Your task to perform on an android device: Go to accessibility settings Image 0: 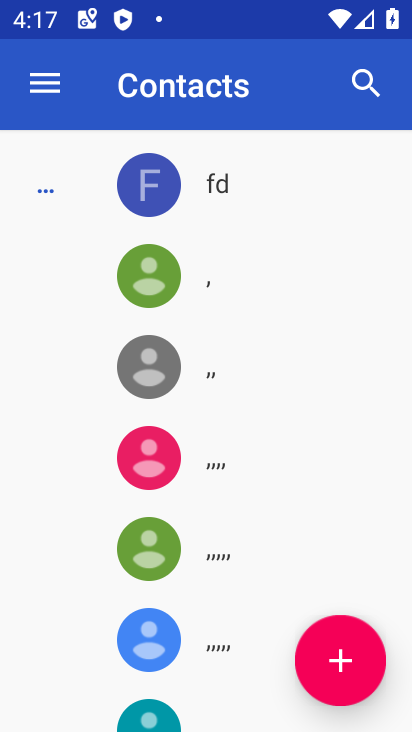
Step 0: press back button
Your task to perform on an android device: Go to accessibility settings Image 1: 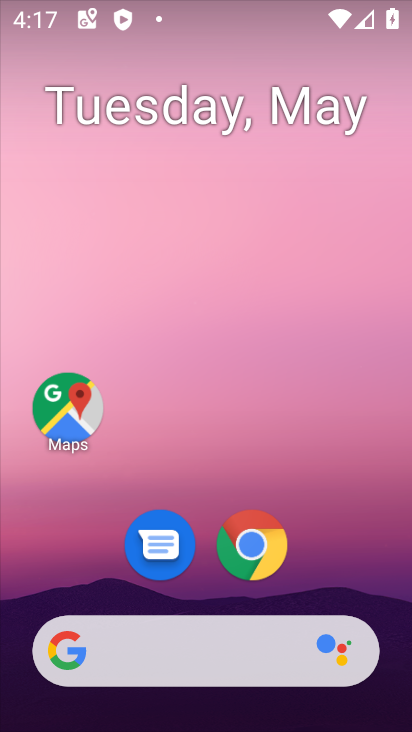
Step 1: drag from (324, 561) to (377, 1)
Your task to perform on an android device: Go to accessibility settings Image 2: 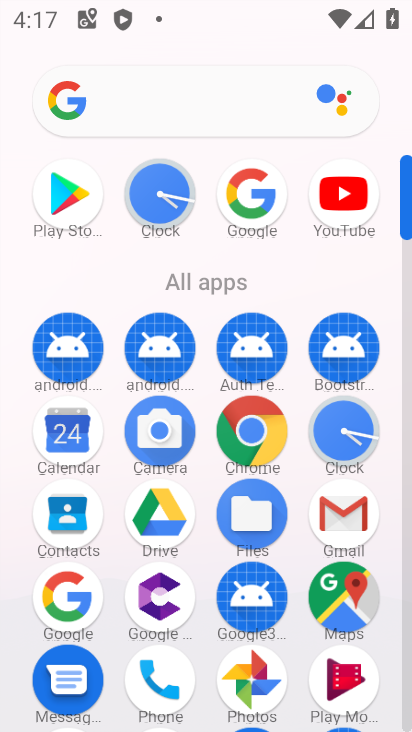
Step 2: drag from (205, 519) to (213, 233)
Your task to perform on an android device: Go to accessibility settings Image 3: 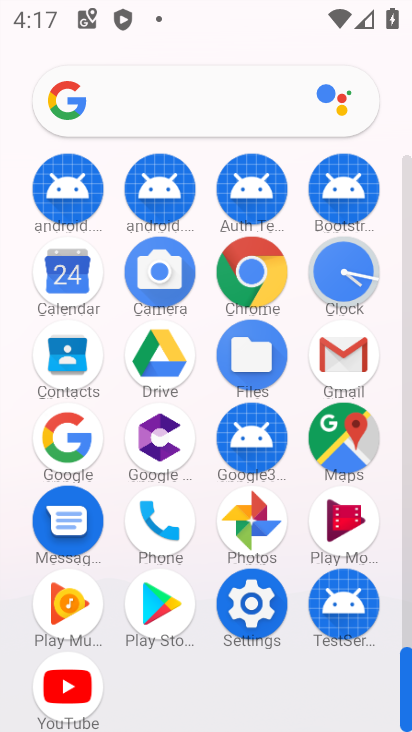
Step 3: click (252, 598)
Your task to perform on an android device: Go to accessibility settings Image 4: 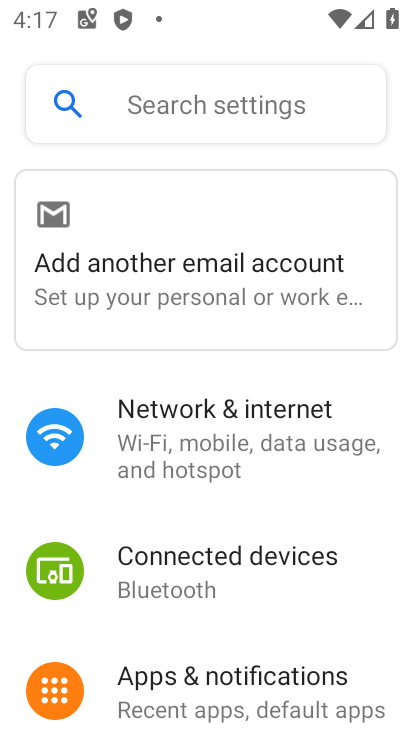
Step 4: drag from (187, 615) to (284, 215)
Your task to perform on an android device: Go to accessibility settings Image 5: 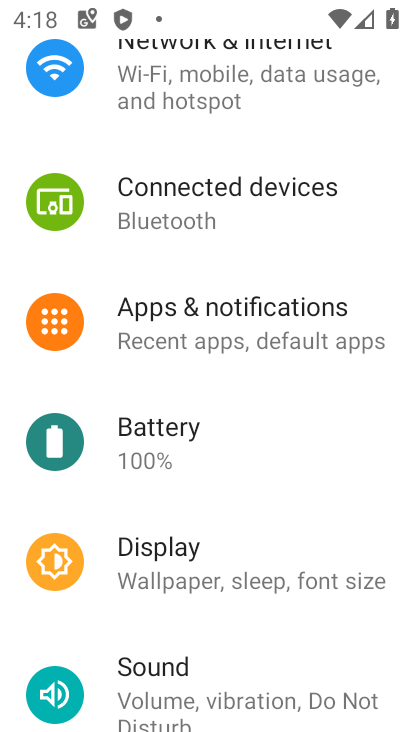
Step 5: drag from (230, 544) to (336, 276)
Your task to perform on an android device: Go to accessibility settings Image 6: 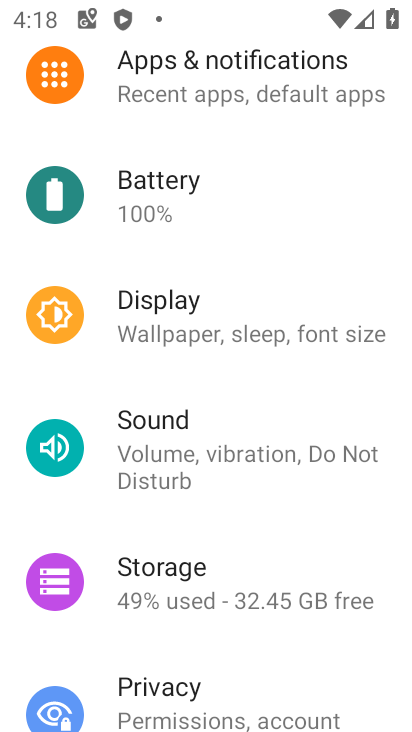
Step 6: drag from (181, 646) to (318, 365)
Your task to perform on an android device: Go to accessibility settings Image 7: 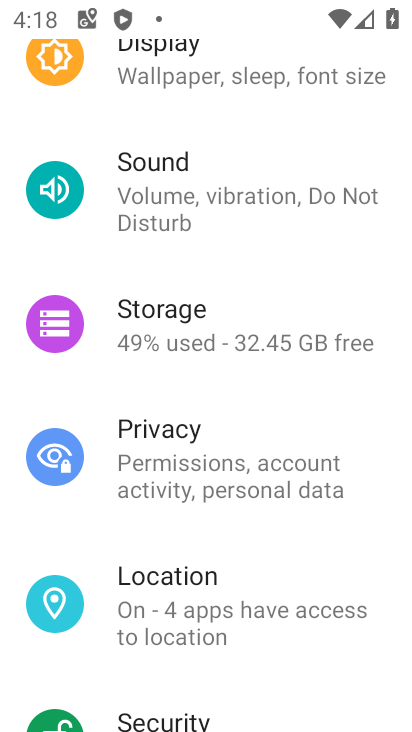
Step 7: drag from (191, 675) to (258, 395)
Your task to perform on an android device: Go to accessibility settings Image 8: 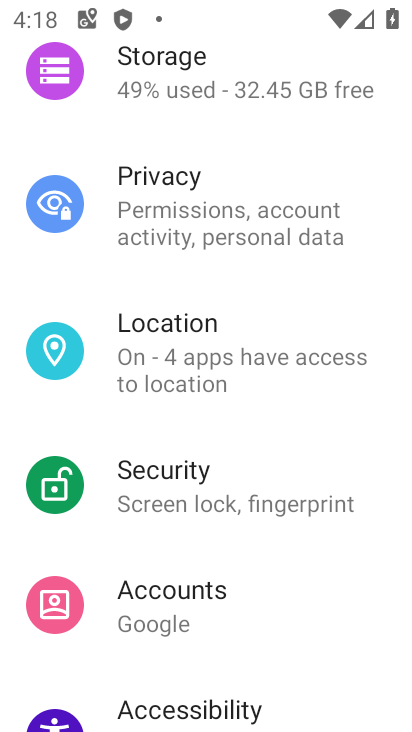
Step 8: drag from (167, 645) to (277, 389)
Your task to perform on an android device: Go to accessibility settings Image 9: 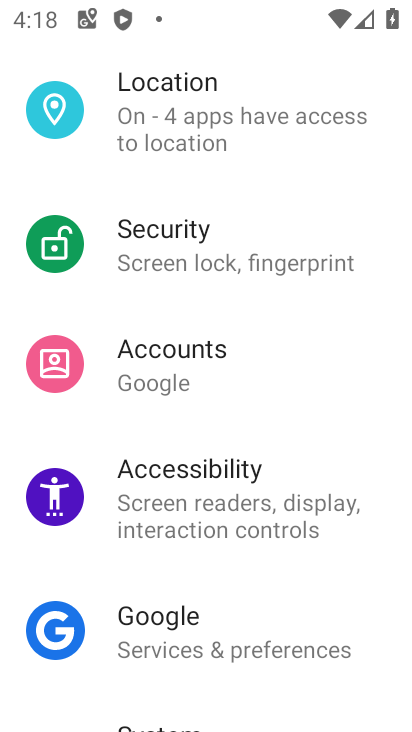
Step 9: click (195, 469)
Your task to perform on an android device: Go to accessibility settings Image 10: 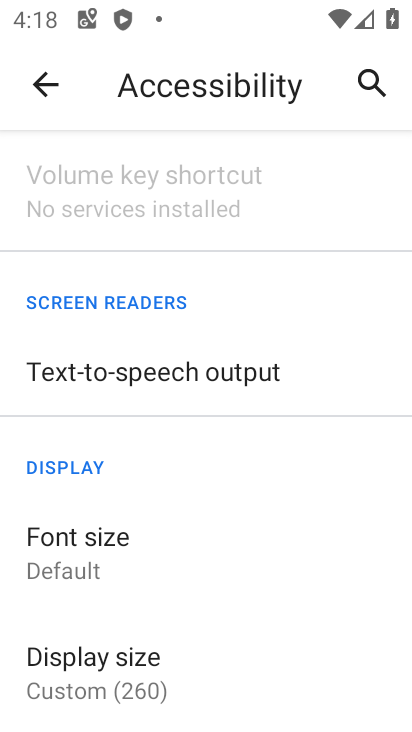
Step 10: task complete